Your task to perform on an android device: Go to Reddit.com Image 0: 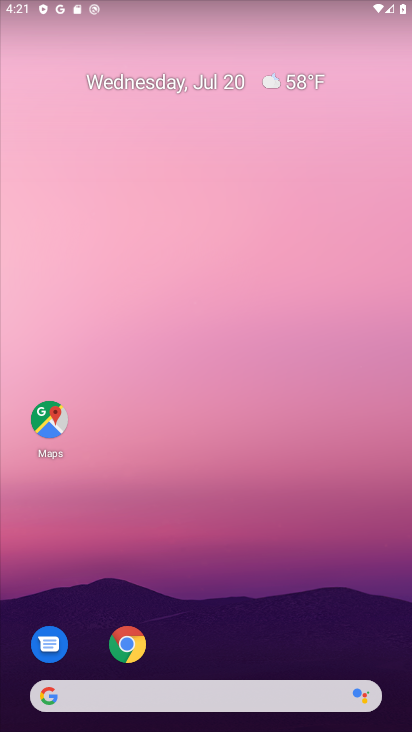
Step 0: press home button
Your task to perform on an android device: Go to Reddit.com Image 1: 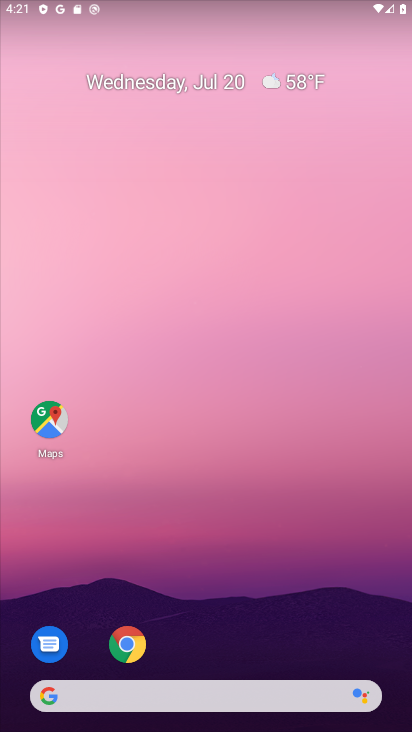
Step 1: click (57, 704)
Your task to perform on an android device: Go to Reddit.com Image 2: 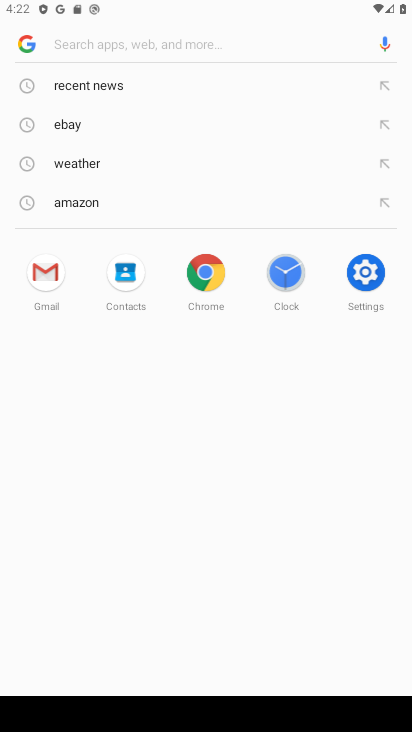
Step 2: type "Reddit.com"
Your task to perform on an android device: Go to Reddit.com Image 3: 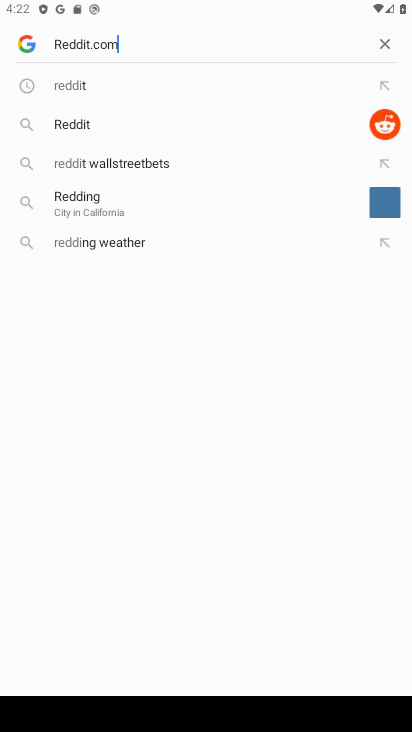
Step 3: press enter
Your task to perform on an android device: Go to Reddit.com Image 4: 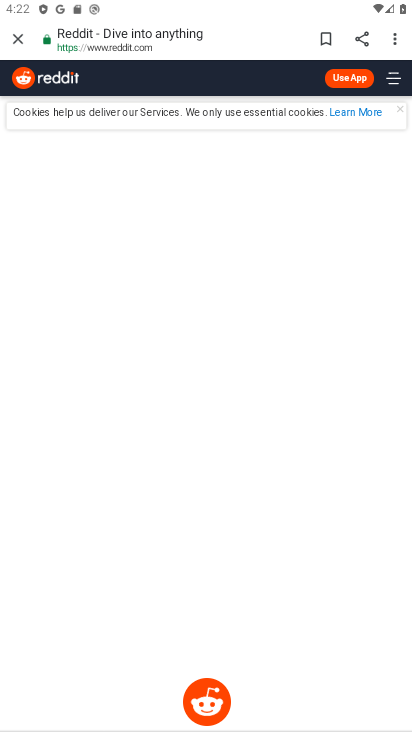
Step 4: task complete